Your task to perform on an android device: Open Reddit.com Image 0: 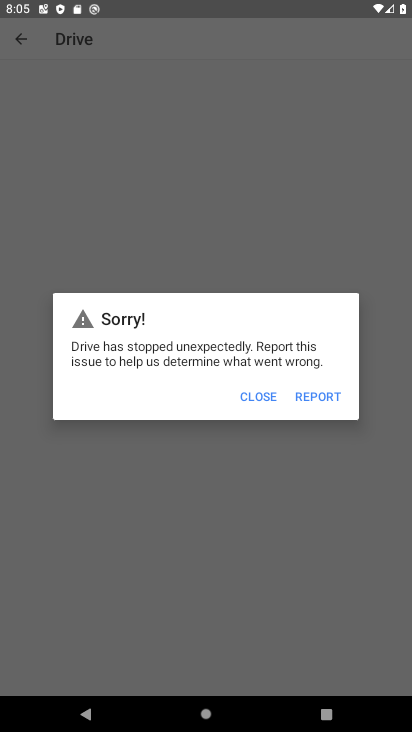
Step 0: press home button
Your task to perform on an android device: Open Reddit.com Image 1: 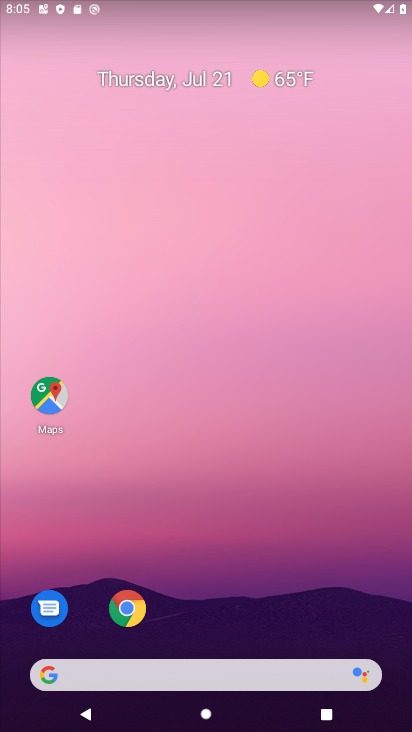
Step 1: click (127, 608)
Your task to perform on an android device: Open Reddit.com Image 2: 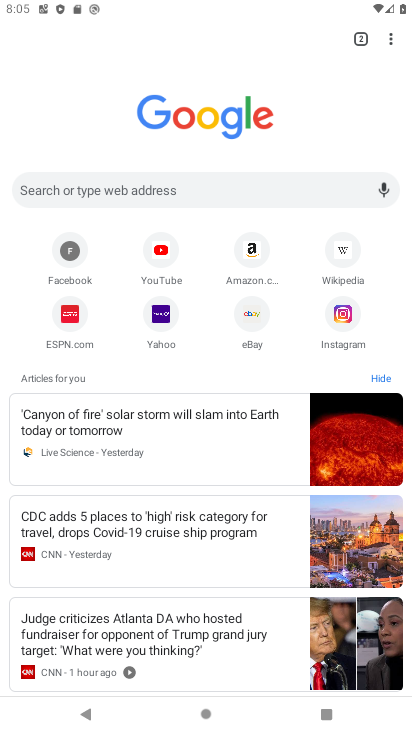
Step 2: click (218, 185)
Your task to perform on an android device: Open Reddit.com Image 3: 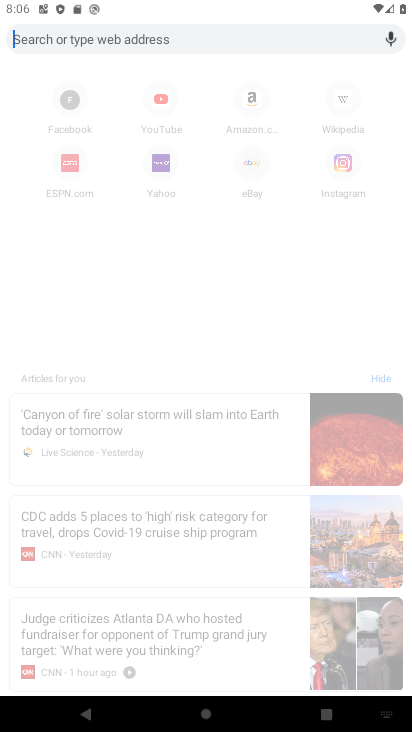
Step 3: type "Reddit.com"
Your task to perform on an android device: Open Reddit.com Image 4: 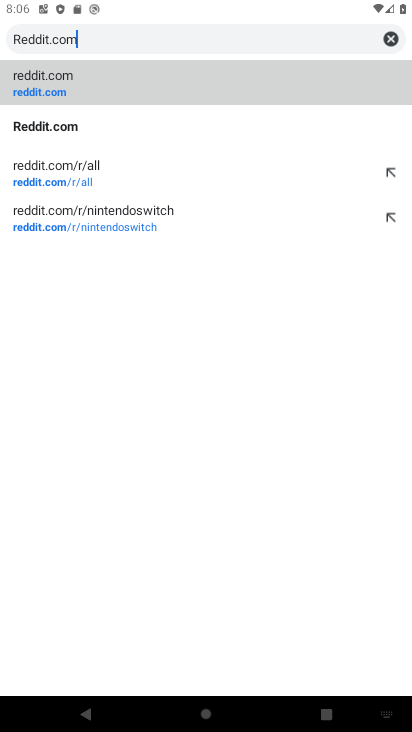
Step 4: click (68, 119)
Your task to perform on an android device: Open Reddit.com Image 5: 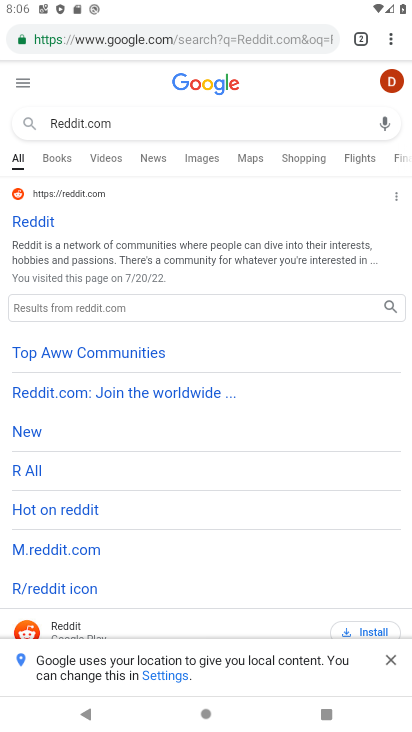
Step 5: click (45, 221)
Your task to perform on an android device: Open Reddit.com Image 6: 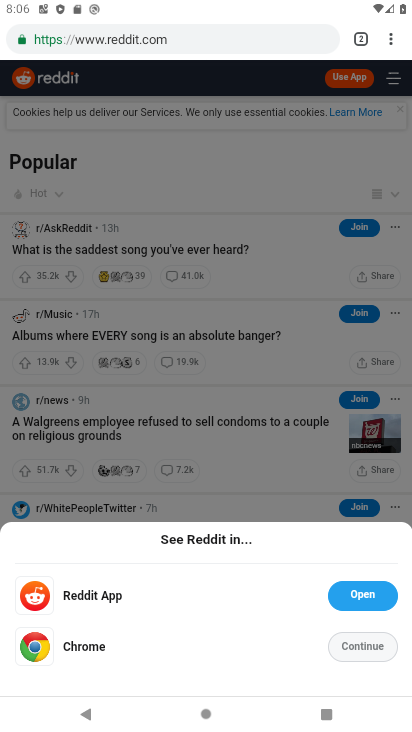
Step 6: click (364, 648)
Your task to perform on an android device: Open Reddit.com Image 7: 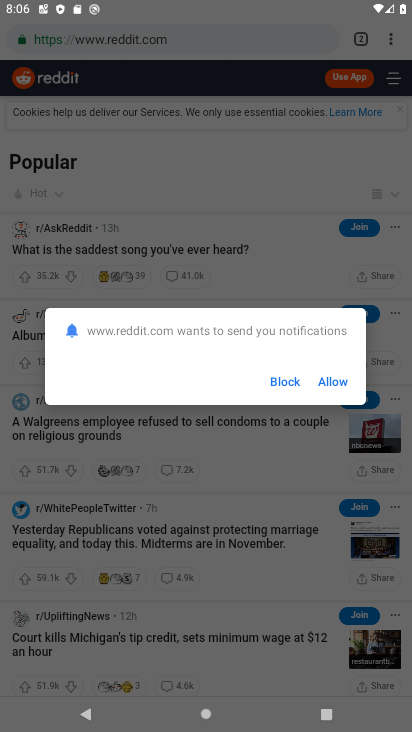
Step 7: click (338, 382)
Your task to perform on an android device: Open Reddit.com Image 8: 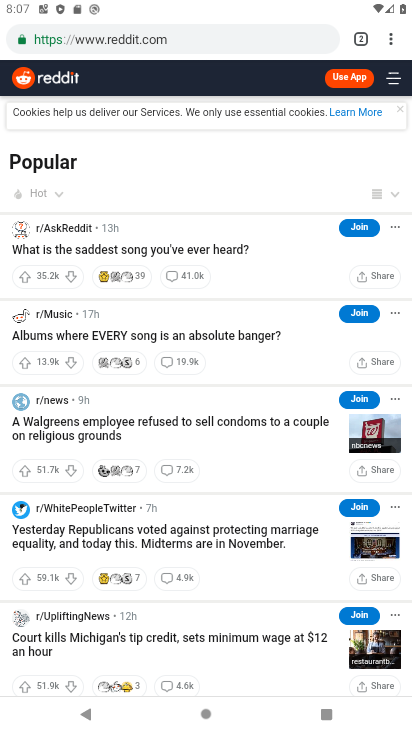
Step 8: task complete